Your task to perform on an android device: toggle notifications settings in the gmail app Image 0: 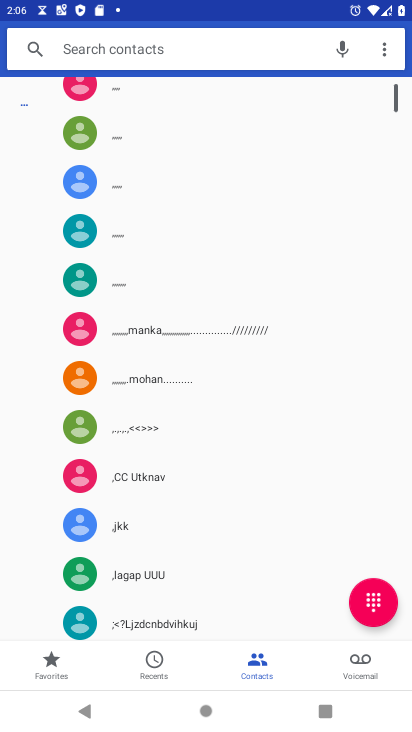
Step 0: press home button
Your task to perform on an android device: toggle notifications settings in the gmail app Image 1: 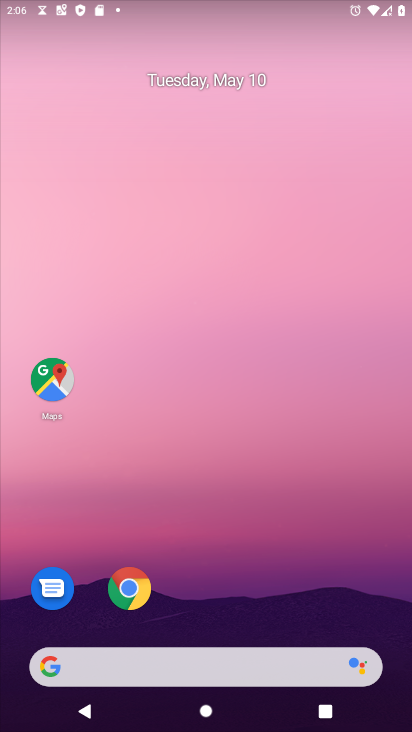
Step 1: drag from (293, 536) to (279, 263)
Your task to perform on an android device: toggle notifications settings in the gmail app Image 2: 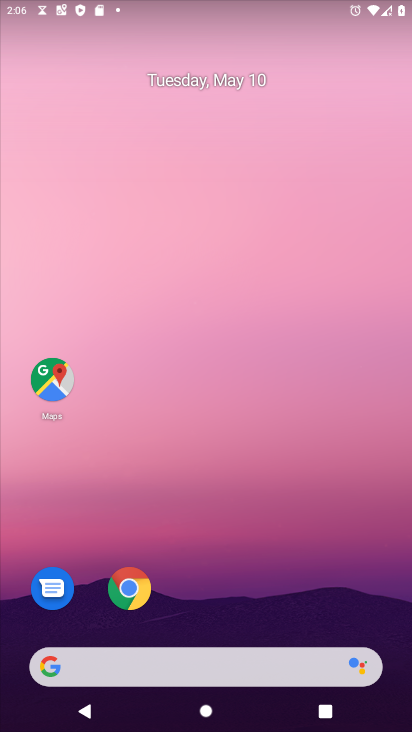
Step 2: drag from (189, 587) to (218, 189)
Your task to perform on an android device: toggle notifications settings in the gmail app Image 3: 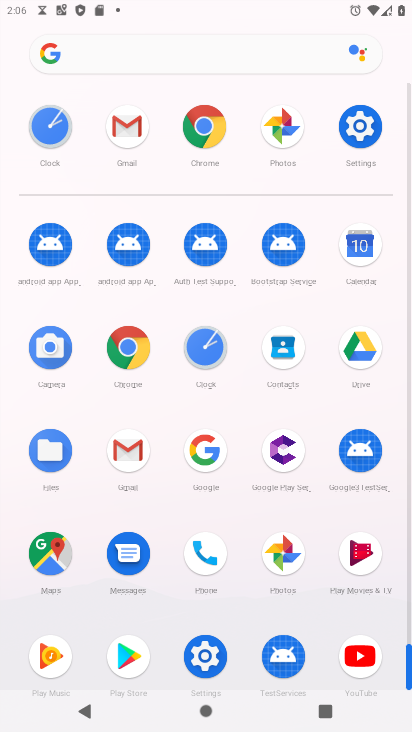
Step 3: click (125, 451)
Your task to perform on an android device: toggle notifications settings in the gmail app Image 4: 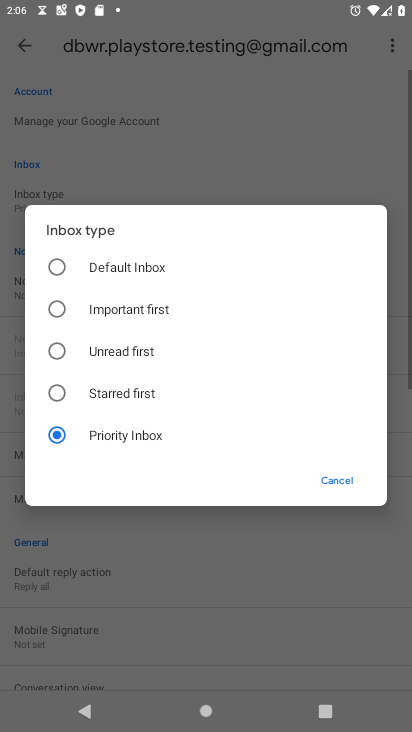
Step 4: click (336, 490)
Your task to perform on an android device: toggle notifications settings in the gmail app Image 5: 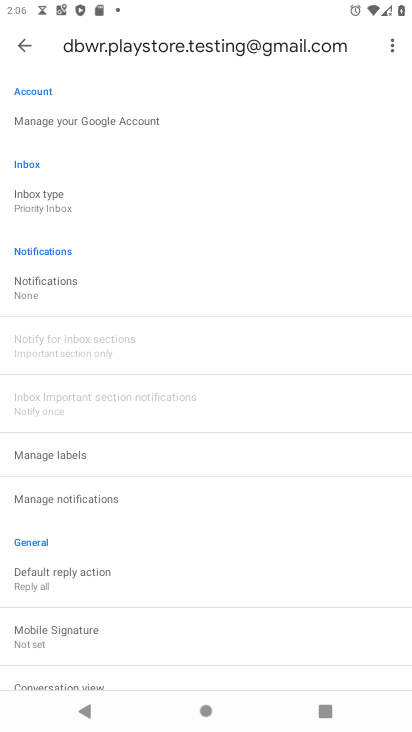
Step 5: click (74, 283)
Your task to perform on an android device: toggle notifications settings in the gmail app Image 6: 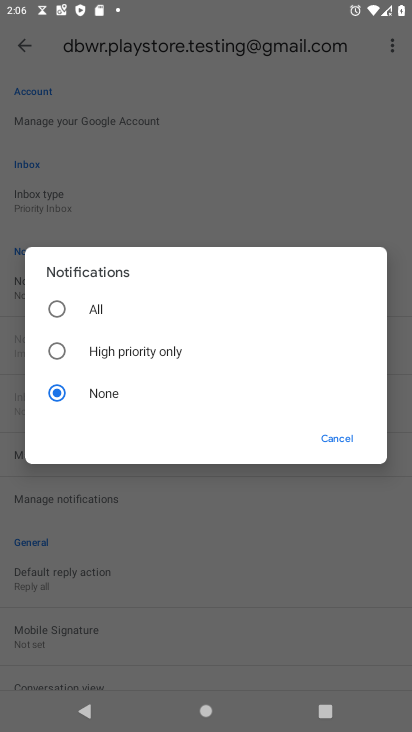
Step 6: click (97, 310)
Your task to perform on an android device: toggle notifications settings in the gmail app Image 7: 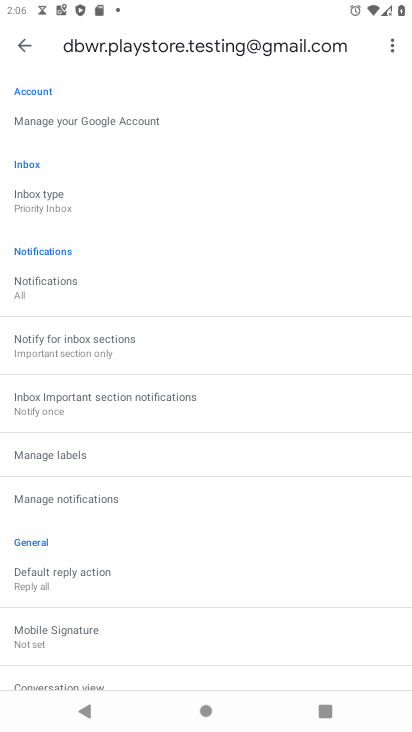
Step 7: task complete